Your task to perform on an android device: turn on bluetooth scan Image 0: 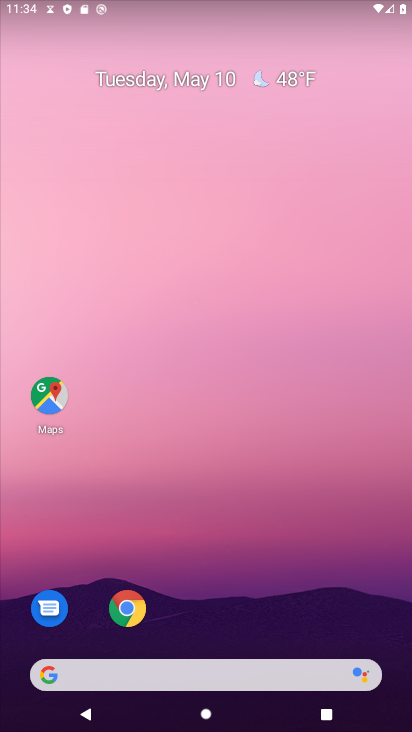
Step 0: drag from (318, 618) to (227, 149)
Your task to perform on an android device: turn on bluetooth scan Image 1: 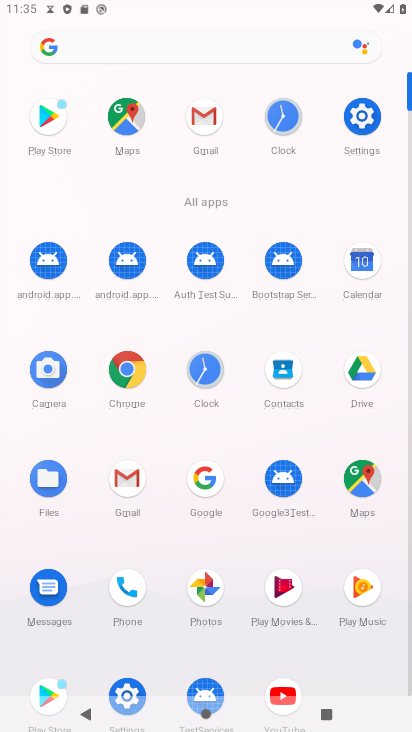
Step 1: click (369, 118)
Your task to perform on an android device: turn on bluetooth scan Image 2: 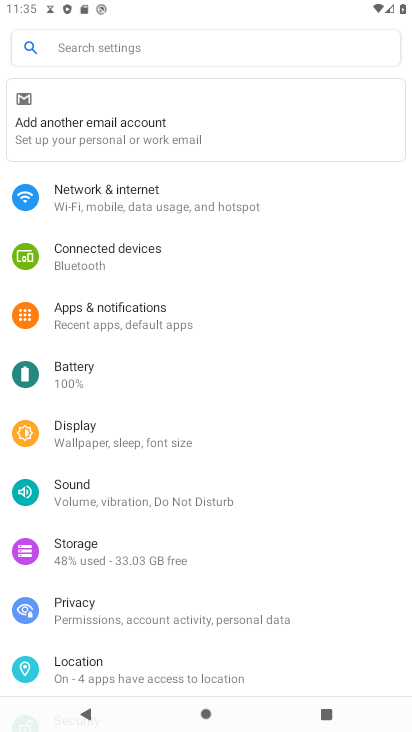
Step 2: click (155, 678)
Your task to perform on an android device: turn on bluetooth scan Image 3: 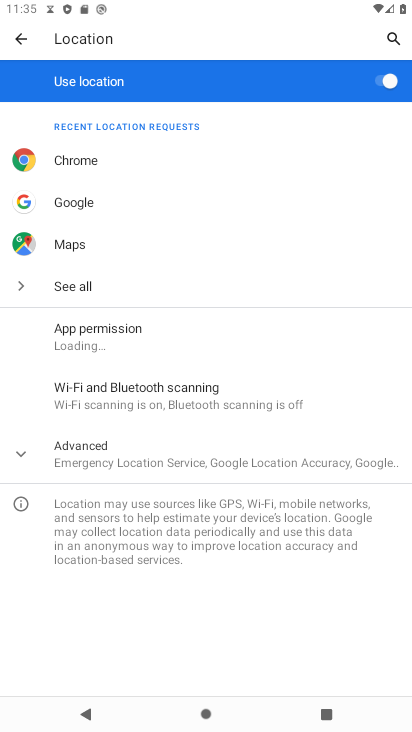
Step 3: click (205, 404)
Your task to perform on an android device: turn on bluetooth scan Image 4: 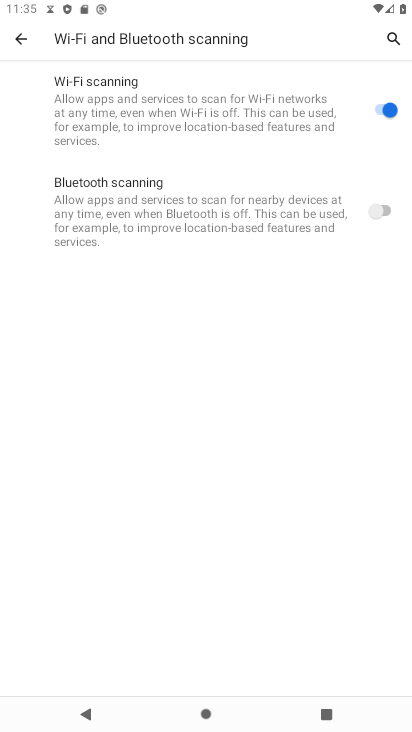
Step 4: click (374, 205)
Your task to perform on an android device: turn on bluetooth scan Image 5: 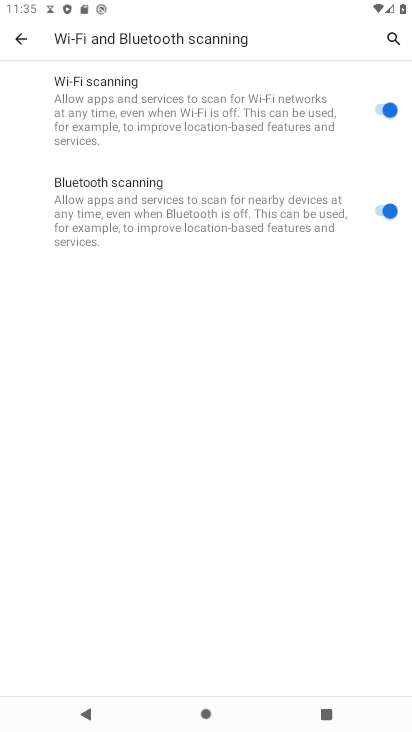
Step 5: task complete